Your task to perform on an android device: toggle airplane mode Image 0: 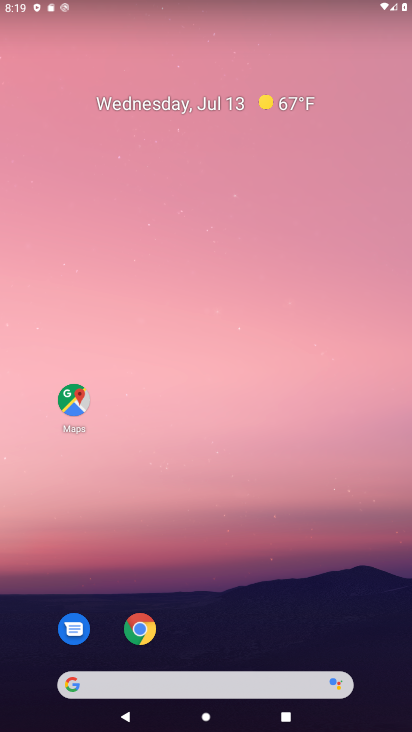
Step 0: drag from (235, 660) to (240, 140)
Your task to perform on an android device: toggle airplane mode Image 1: 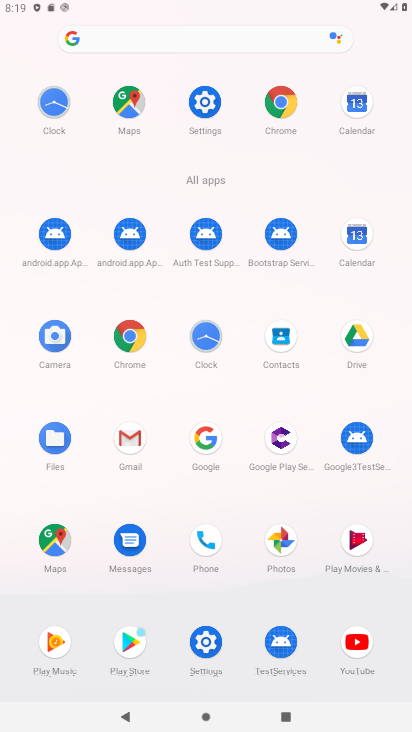
Step 1: click (193, 97)
Your task to perform on an android device: toggle airplane mode Image 2: 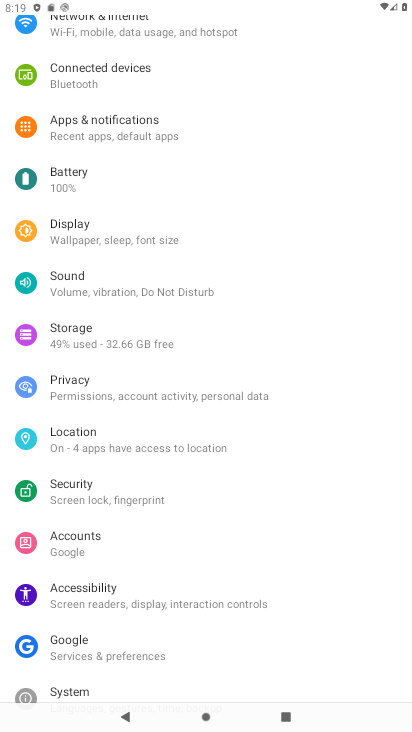
Step 2: drag from (164, 133) to (165, 633)
Your task to perform on an android device: toggle airplane mode Image 3: 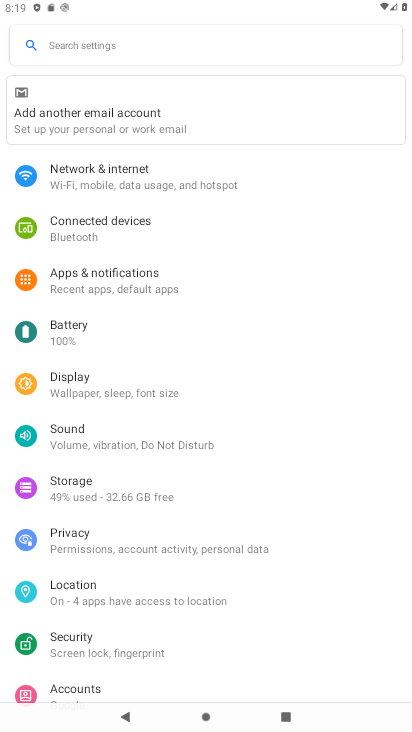
Step 3: click (159, 190)
Your task to perform on an android device: toggle airplane mode Image 4: 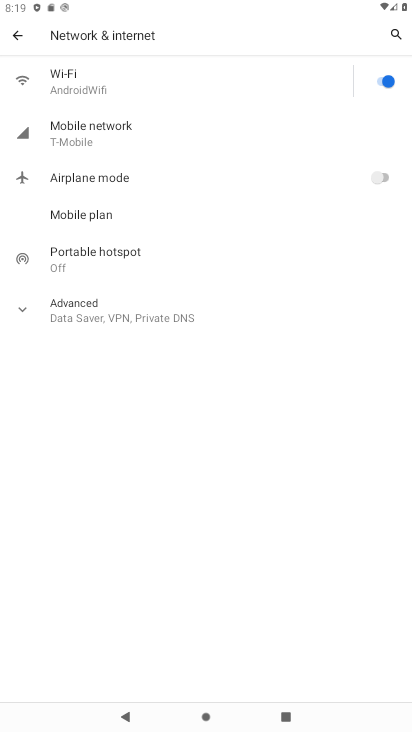
Step 4: click (327, 173)
Your task to perform on an android device: toggle airplane mode Image 5: 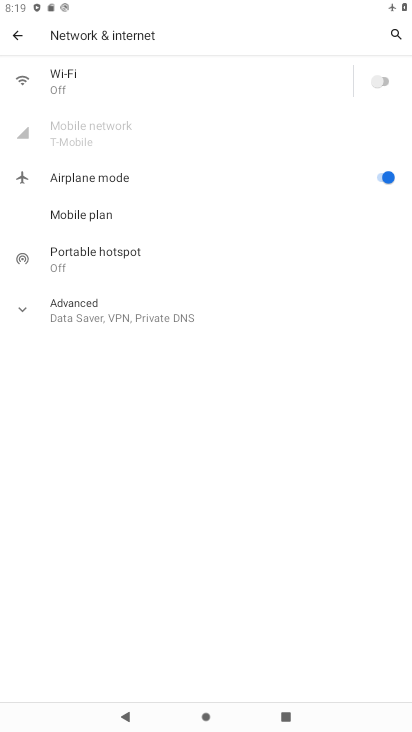
Step 5: task complete